Your task to perform on an android device: turn off notifications settings in the gmail app Image 0: 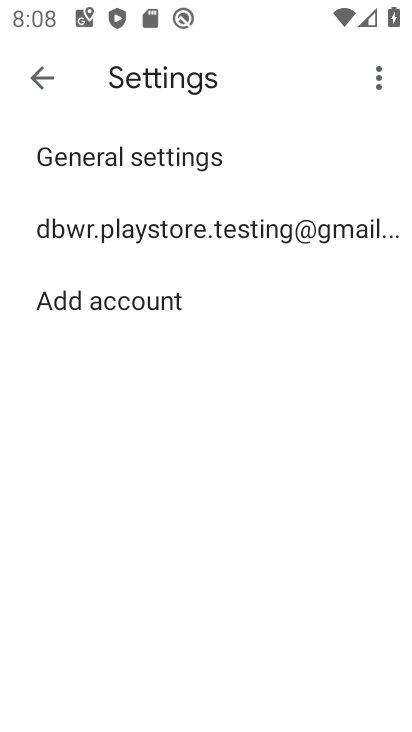
Step 0: press home button
Your task to perform on an android device: turn off notifications settings in the gmail app Image 1: 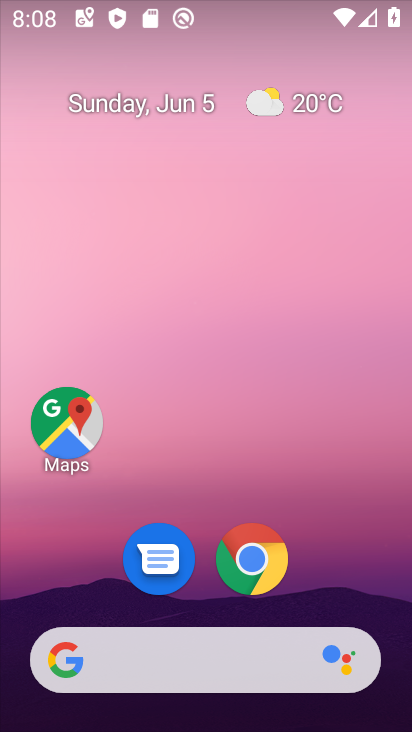
Step 1: drag from (344, 561) to (325, 250)
Your task to perform on an android device: turn off notifications settings in the gmail app Image 2: 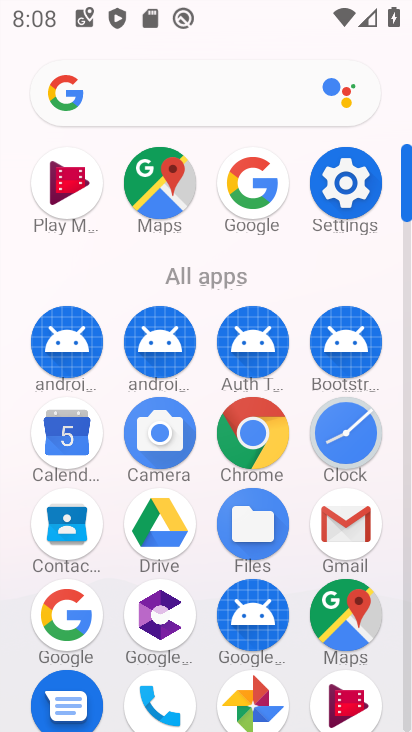
Step 2: click (335, 520)
Your task to perform on an android device: turn off notifications settings in the gmail app Image 3: 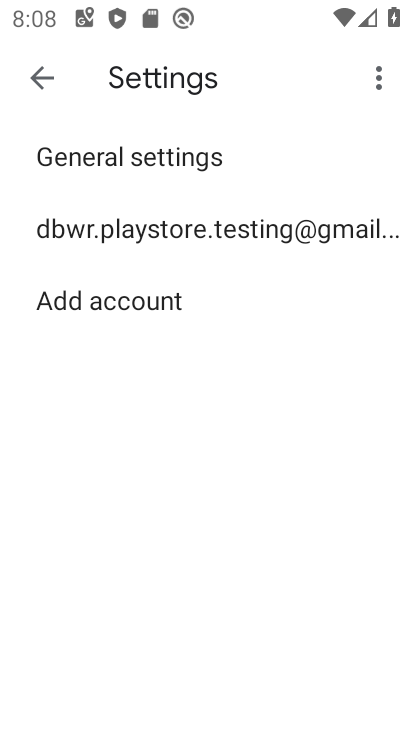
Step 3: click (254, 238)
Your task to perform on an android device: turn off notifications settings in the gmail app Image 4: 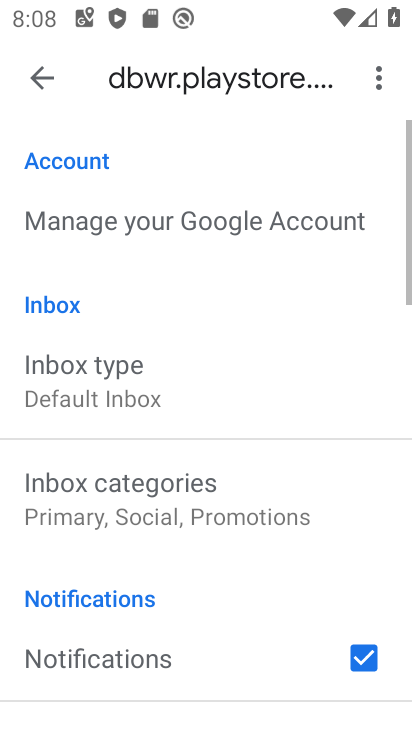
Step 4: drag from (170, 610) to (213, 291)
Your task to perform on an android device: turn off notifications settings in the gmail app Image 5: 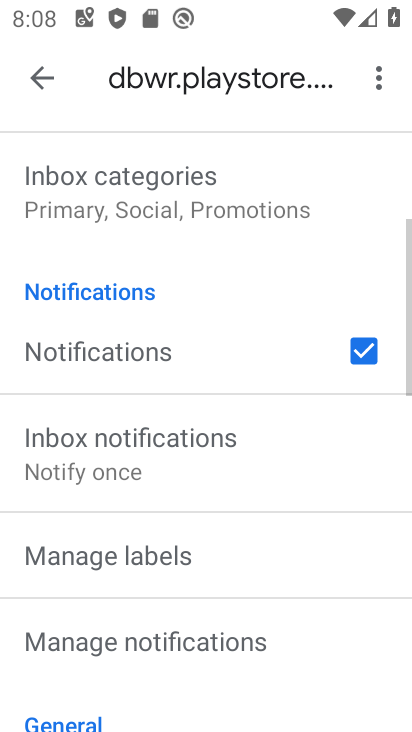
Step 5: drag from (213, 335) to (180, 647)
Your task to perform on an android device: turn off notifications settings in the gmail app Image 6: 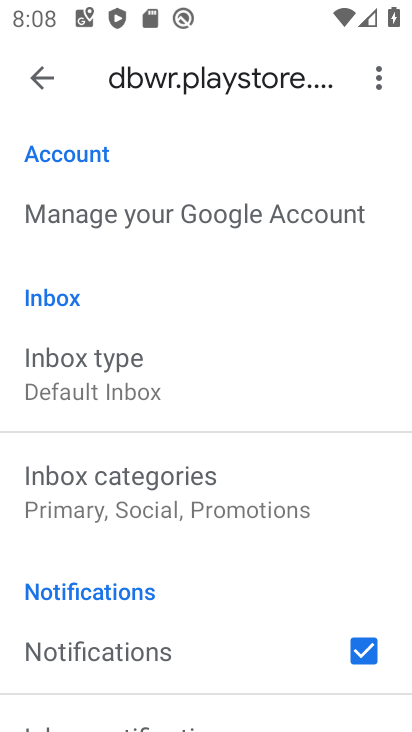
Step 6: click (362, 650)
Your task to perform on an android device: turn off notifications settings in the gmail app Image 7: 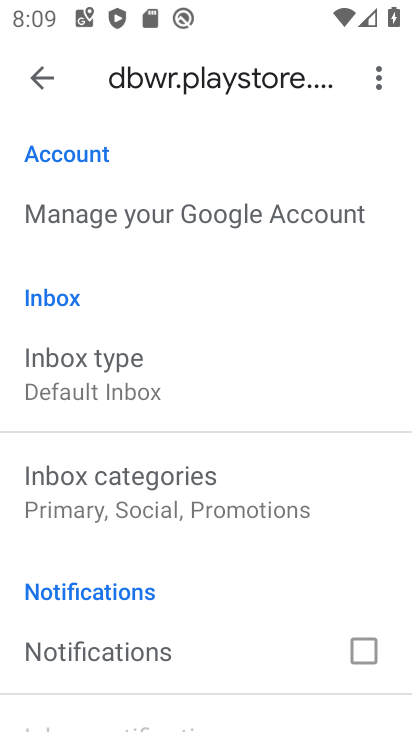
Step 7: task complete